Your task to perform on an android device: turn off data saver in the chrome app Image 0: 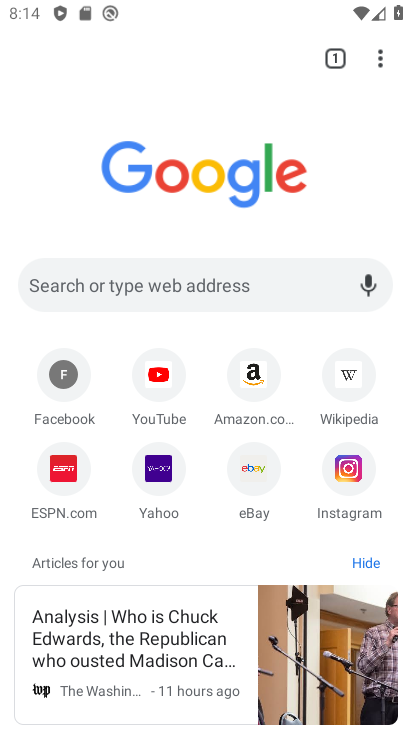
Step 0: press home button
Your task to perform on an android device: turn off data saver in the chrome app Image 1: 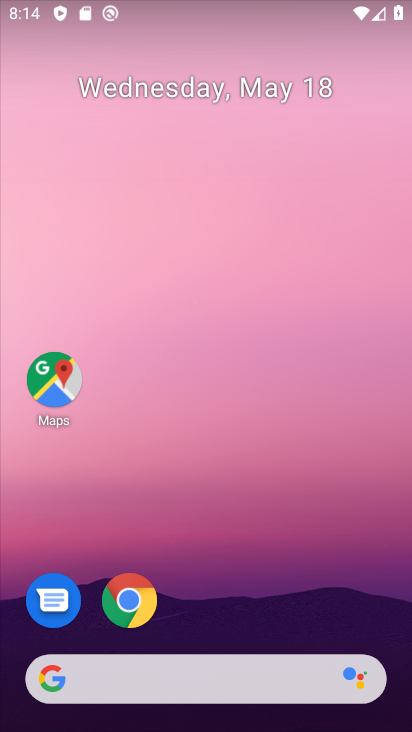
Step 1: click (130, 599)
Your task to perform on an android device: turn off data saver in the chrome app Image 2: 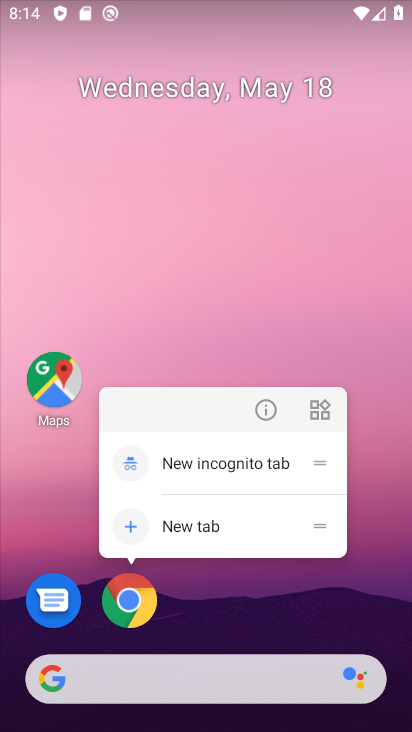
Step 2: click (130, 598)
Your task to perform on an android device: turn off data saver in the chrome app Image 3: 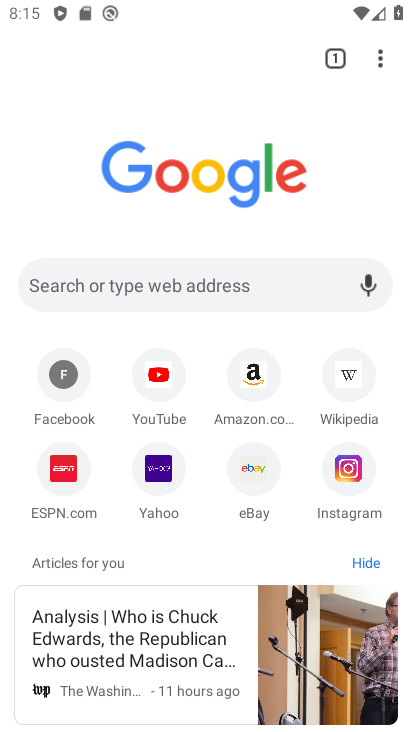
Step 3: click (382, 59)
Your task to perform on an android device: turn off data saver in the chrome app Image 4: 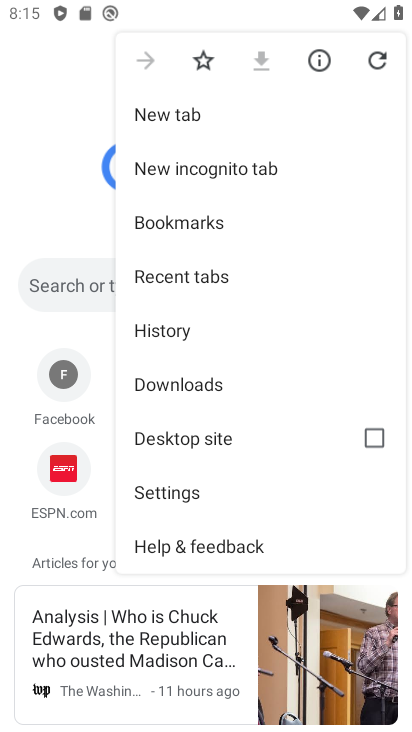
Step 4: click (221, 501)
Your task to perform on an android device: turn off data saver in the chrome app Image 5: 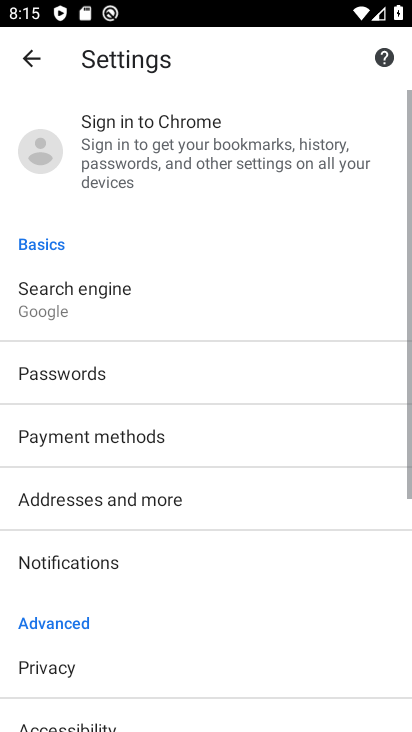
Step 5: task complete